Your task to perform on an android device: Search for seafood restaurants on Google Maps Image 0: 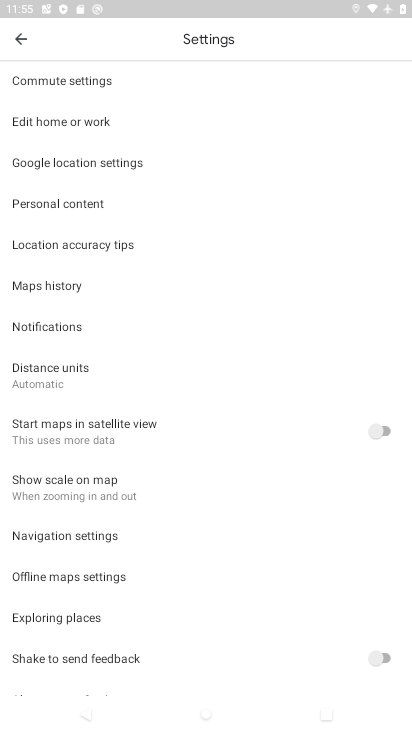
Step 0: press home button
Your task to perform on an android device: Search for seafood restaurants on Google Maps Image 1: 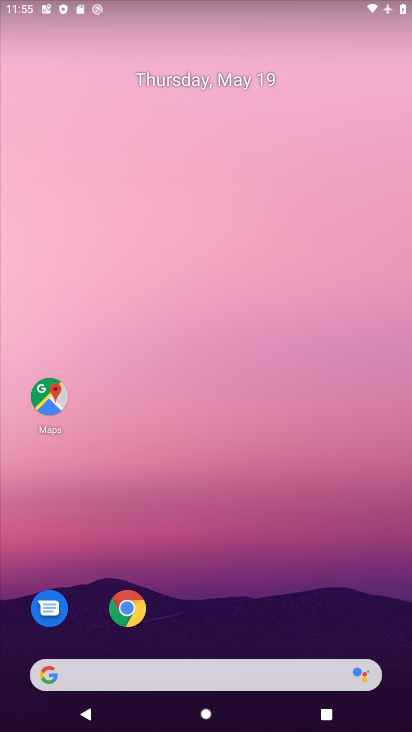
Step 1: drag from (359, 565) to (389, 166)
Your task to perform on an android device: Search for seafood restaurants on Google Maps Image 2: 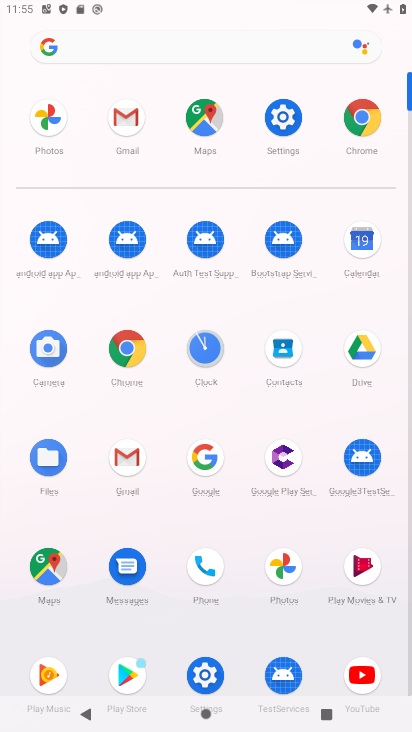
Step 2: click (60, 569)
Your task to perform on an android device: Search for seafood restaurants on Google Maps Image 3: 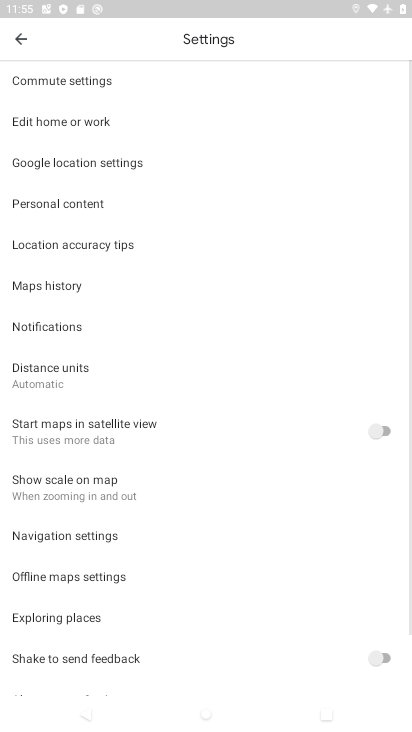
Step 3: press back button
Your task to perform on an android device: Search for seafood restaurants on Google Maps Image 4: 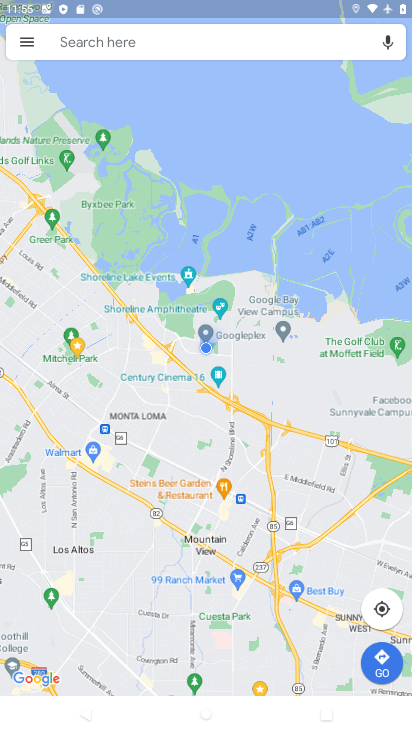
Step 4: click (320, 38)
Your task to perform on an android device: Search for seafood restaurants on Google Maps Image 5: 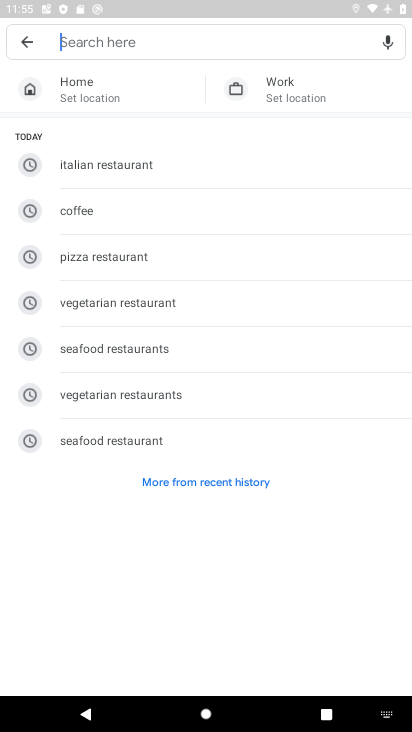
Step 5: type "seafoofd"
Your task to perform on an android device: Search for seafood restaurants on Google Maps Image 6: 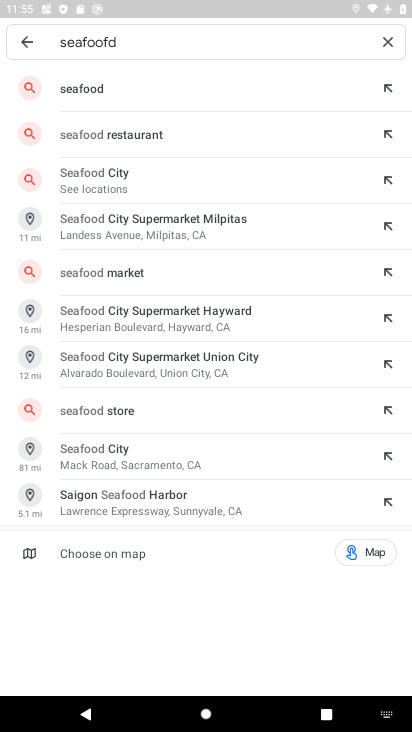
Step 6: click (205, 137)
Your task to perform on an android device: Search for seafood restaurants on Google Maps Image 7: 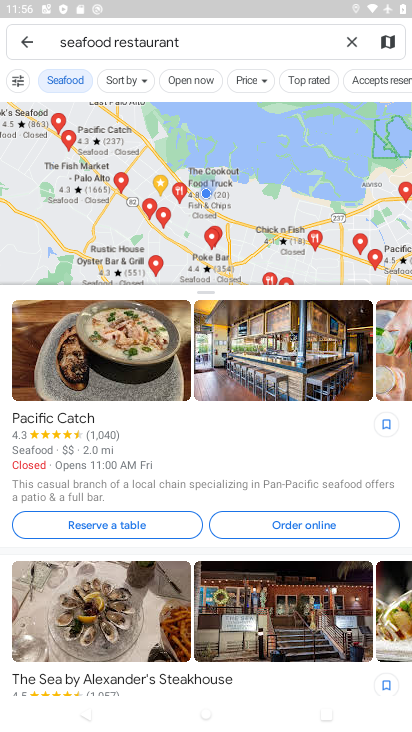
Step 7: task complete